Your task to perform on an android device: Go to sound settings Image 0: 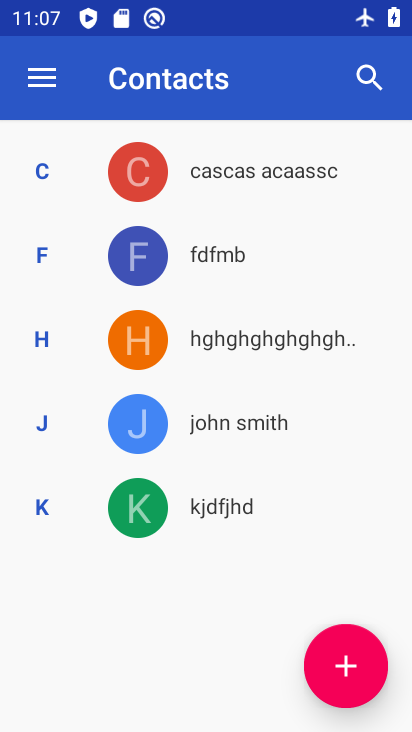
Step 0: press home button
Your task to perform on an android device: Go to sound settings Image 1: 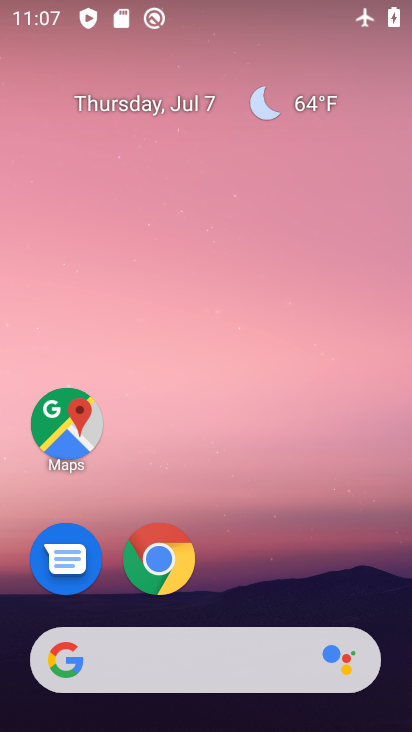
Step 1: drag from (196, 612) to (292, 218)
Your task to perform on an android device: Go to sound settings Image 2: 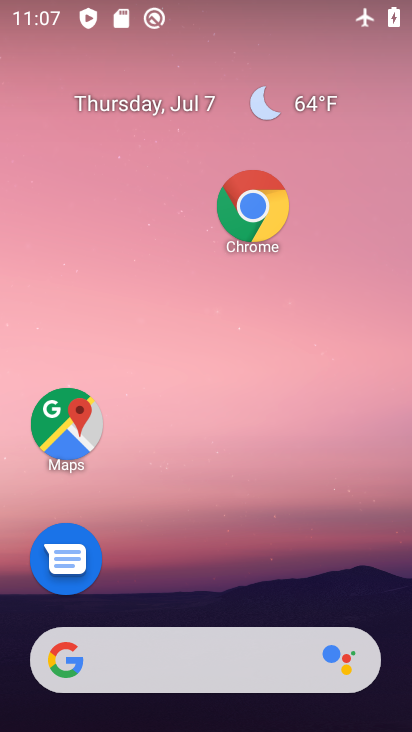
Step 2: drag from (158, 621) to (186, 148)
Your task to perform on an android device: Go to sound settings Image 3: 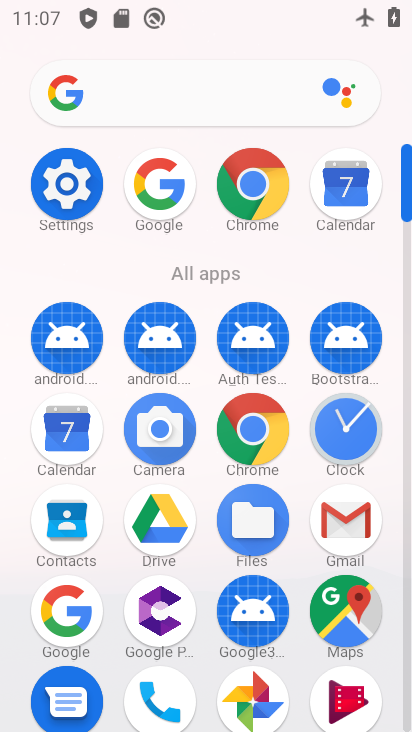
Step 3: click (59, 191)
Your task to perform on an android device: Go to sound settings Image 4: 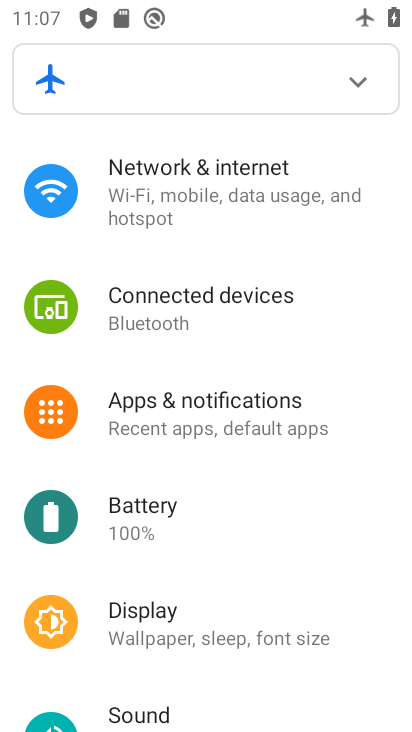
Step 4: drag from (134, 684) to (149, 300)
Your task to perform on an android device: Go to sound settings Image 5: 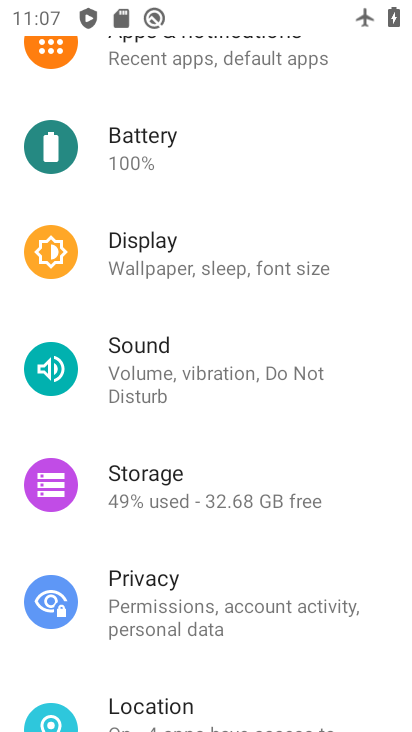
Step 5: click (141, 377)
Your task to perform on an android device: Go to sound settings Image 6: 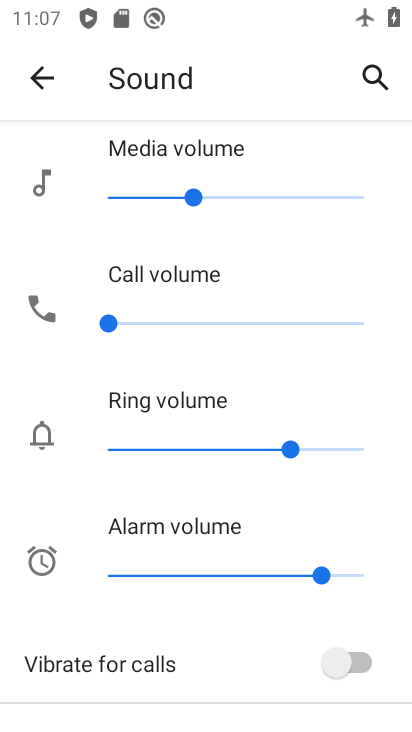
Step 6: task complete